Your task to perform on an android device: find which apps use the phone's location Image 0: 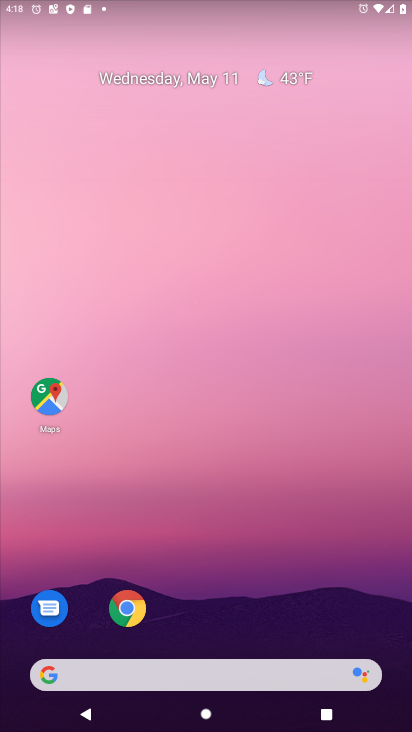
Step 0: drag from (221, 718) to (232, 152)
Your task to perform on an android device: find which apps use the phone's location Image 1: 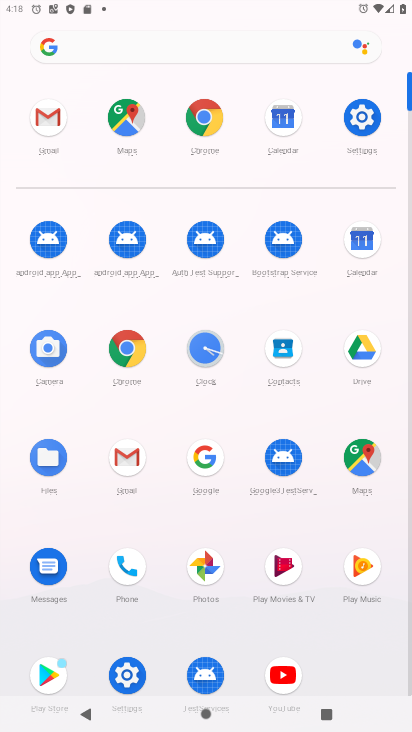
Step 1: click (126, 668)
Your task to perform on an android device: find which apps use the phone's location Image 2: 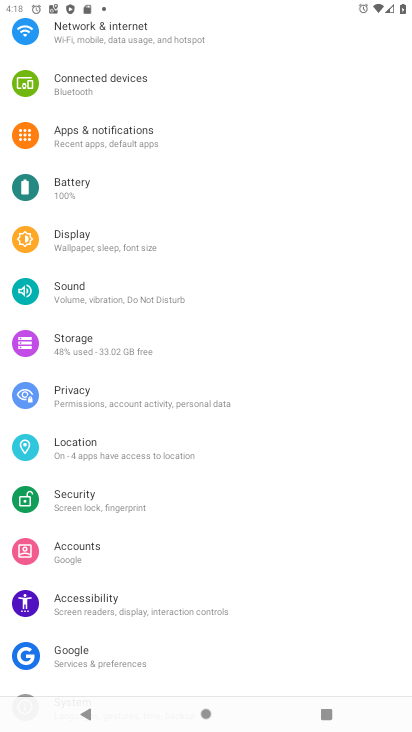
Step 2: click (80, 445)
Your task to perform on an android device: find which apps use the phone's location Image 3: 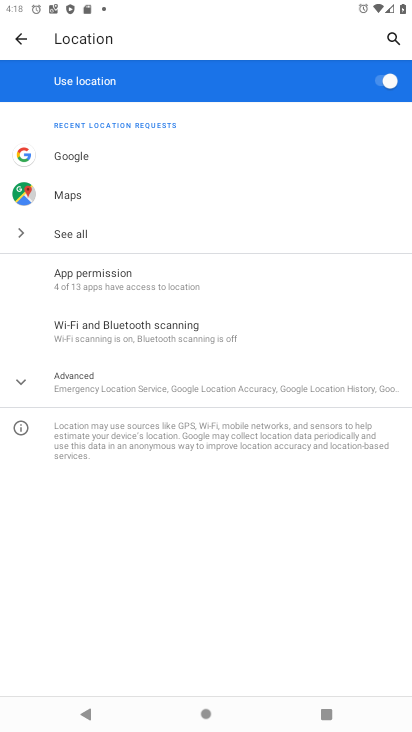
Step 3: click (88, 274)
Your task to perform on an android device: find which apps use the phone's location Image 4: 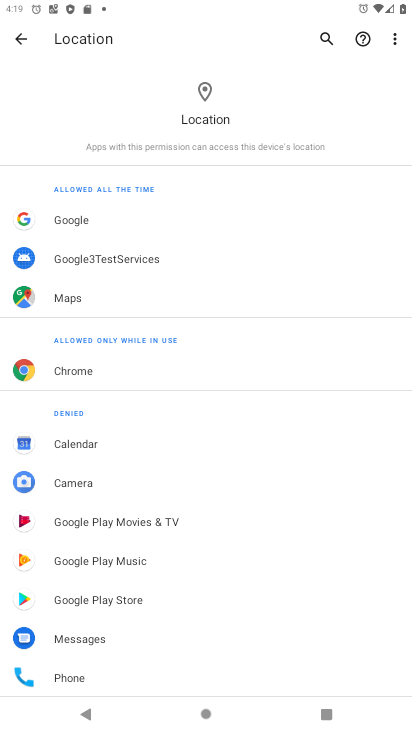
Step 4: task complete